Your task to perform on an android device: turn vacation reply on in the gmail app Image 0: 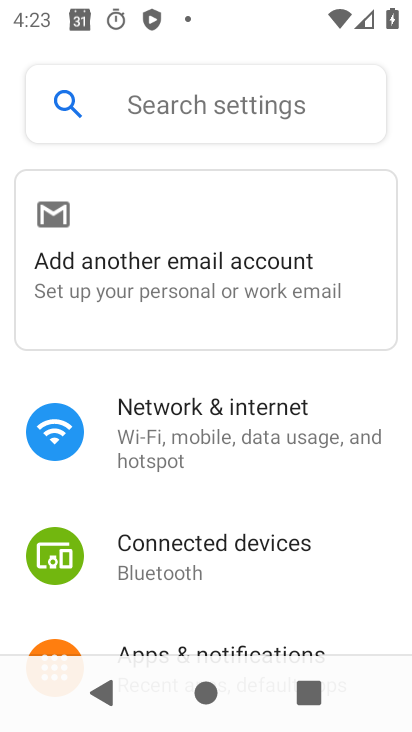
Step 0: press home button
Your task to perform on an android device: turn vacation reply on in the gmail app Image 1: 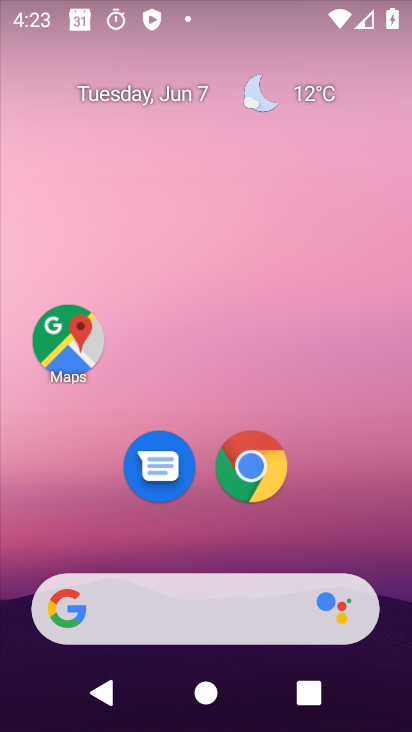
Step 1: drag from (389, 568) to (247, 259)
Your task to perform on an android device: turn vacation reply on in the gmail app Image 2: 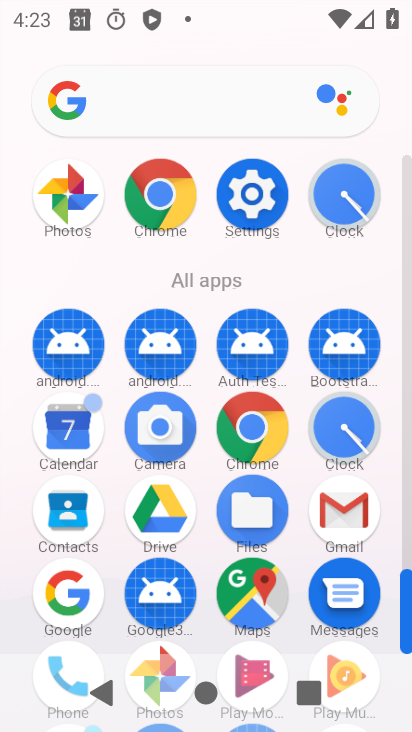
Step 2: click (354, 530)
Your task to perform on an android device: turn vacation reply on in the gmail app Image 3: 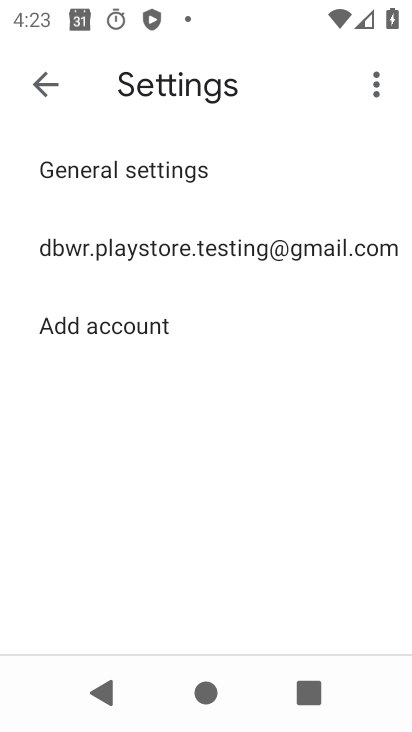
Step 3: click (258, 263)
Your task to perform on an android device: turn vacation reply on in the gmail app Image 4: 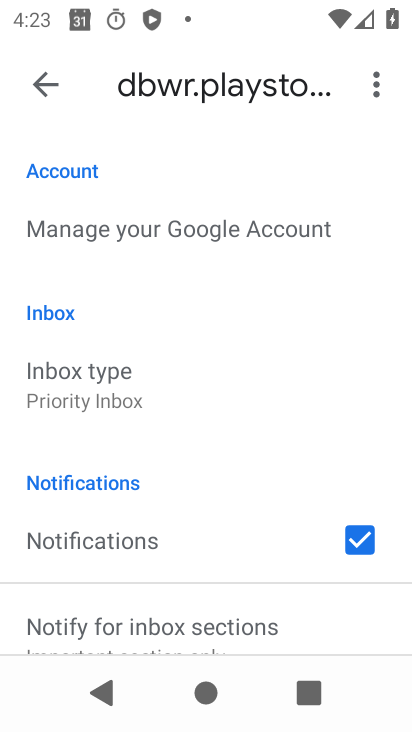
Step 4: drag from (278, 643) to (225, 73)
Your task to perform on an android device: turn vacation reply on in the gmail app Image 5: 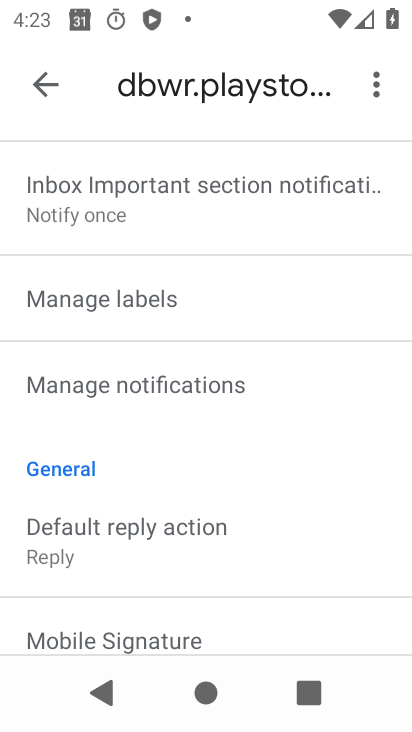
Step 5: drag from (301, 522) to (257, 115)
Your task to perform on an android device: turn vacation reply on in the gmail app Image 6: 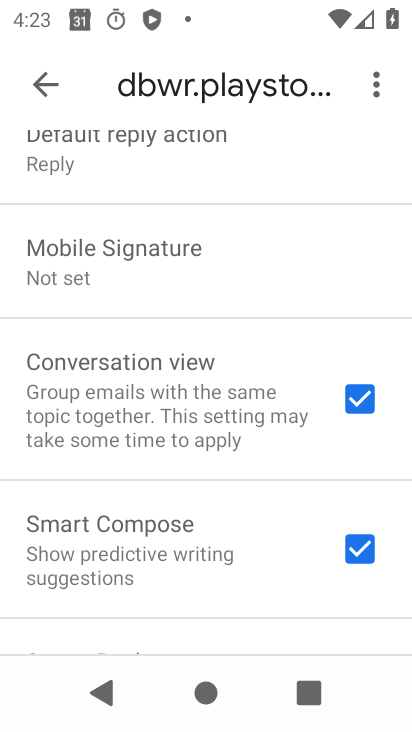
Step 6: drag from (298, 487) to (258, 196)
Your task to perform on an android device: turn vacation reply on in the gmail app Image 7: 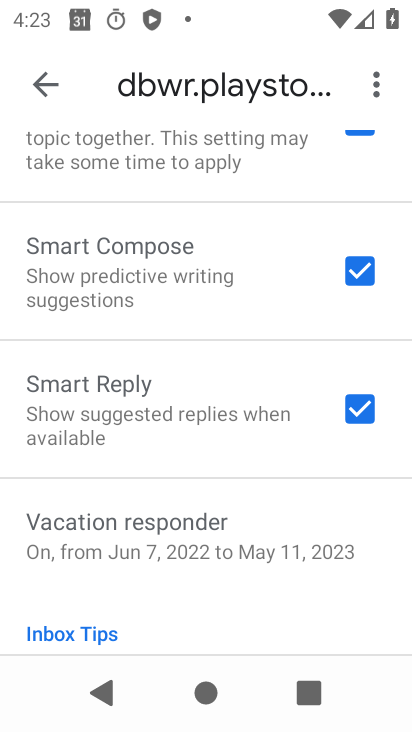
Step 7: click (296, 533)
Your task to perform on an android device: turn vacation reply on in the gmail app Image 8: 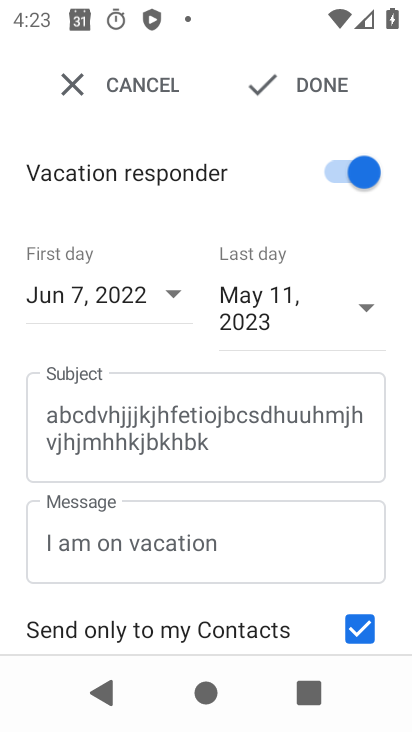
Step 8: click (326, 98)
Your task to perform on an android device: turn vacation reply on in the gmail app Image 9: 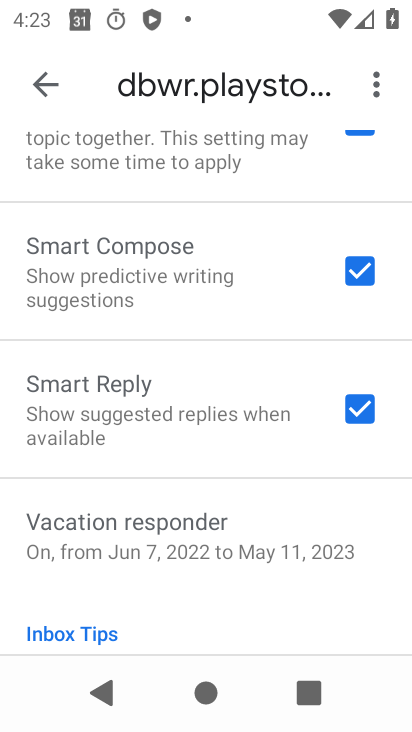
Step 9: task complete